Your task to perform on an android device: Search for razer blade on newegg.com, select the first entry, and add it to the cart. Image 0: 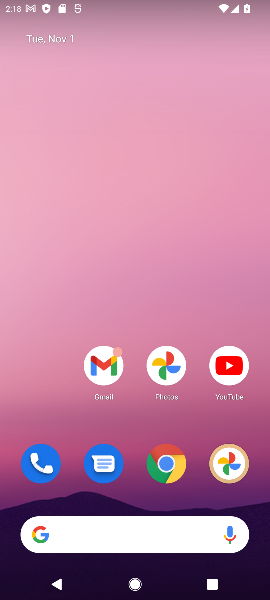
Step 0: drag from (139, 448) to (267, 15)
Your task to perform on an android device: Search for razer blade on newegg.com, select the first entry, and add it to the cart. Image 1: 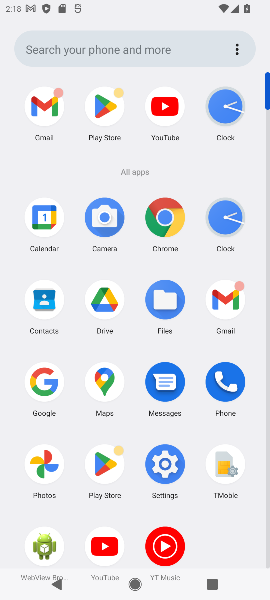
Step 1: click (166, 216)
Your task to perform on an android device: Search for razer blade on newegg.com, select the first entry, and add it to the cart. Image 2: 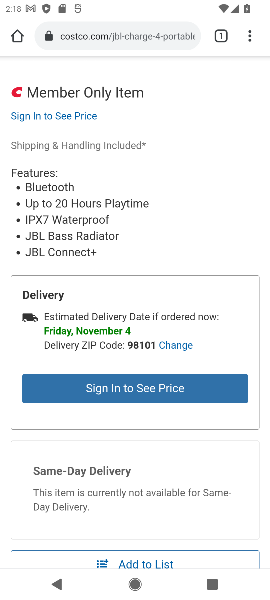
Step 2: click (168, 32)
Your task to perform on an android device: Search for razer blade on newegg.com, select the first entry, and add it to the cart. Image 3: 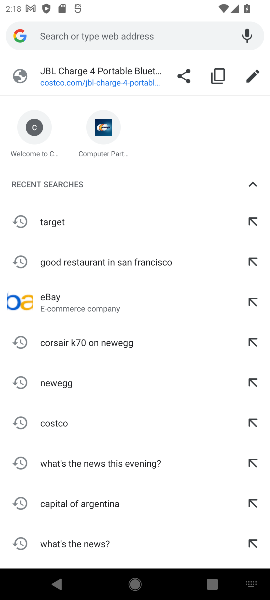
Step 3: type "newegg.com"
Your task to perform on an android device: Search for razer blade on newegg.com, select the first entry, and add it to the cart. Image 4: 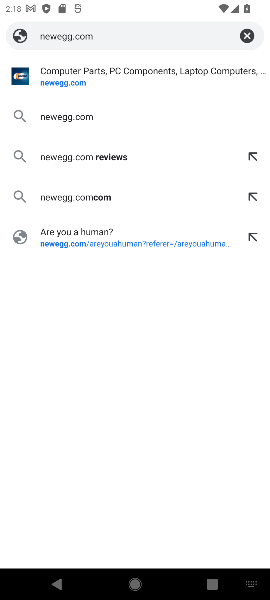
Step 4: press enter
Your task to perform on an android device: Search for razer blade on newegg.com, select the first entry, and add it to the cart. Image 5: 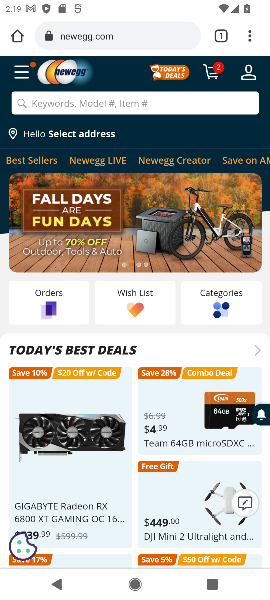
Step 5: click (216, 96)
Your task to perform on an android device: Search for razer blade on newegg.com, select the first entry, and add it to the cart. Image 6: 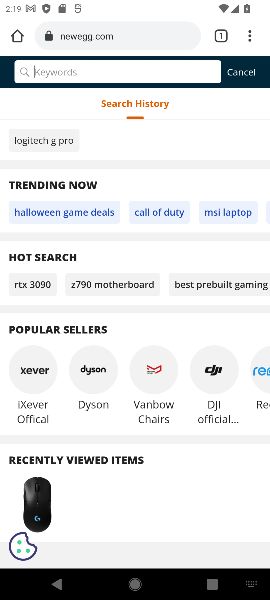
Step 6: type "razer blade"
Your task to perform on an android device: Search for razer blade on newegg.com, select the first entry, and add it to the cart. Image 7: 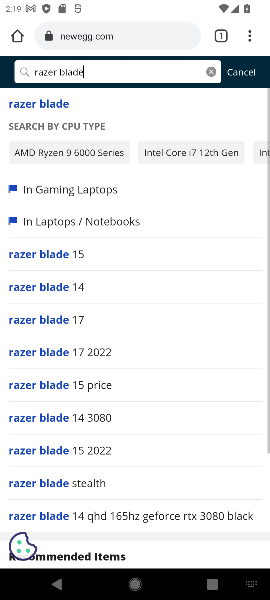
Step 7: press enter
Your task to perform on an android device: Search for razer blade on newegg.com, select the first entry, and add it to the cart. Image 8: 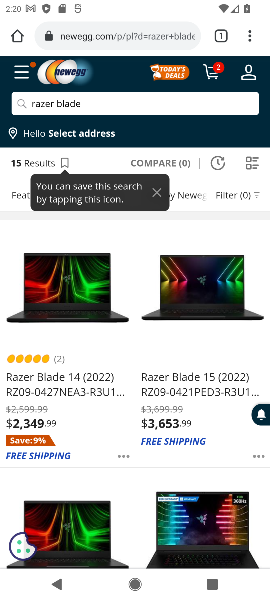
Step 8: click (69, 302)
Your task to perform on an android device: Search for razer blade on newegg.com, select the first entry, and add it to the cart. Image 9: 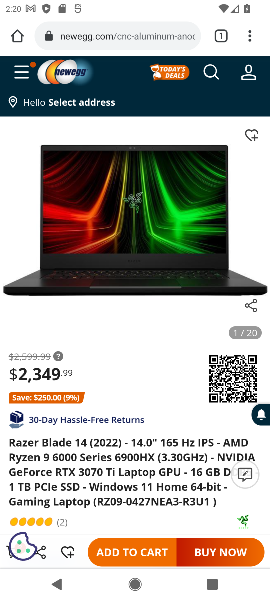
Step 9: click (142, 552)
Your task to perform on an android device: Search for razer blade on newegg.com, select the first entry, and add it to the cart. Image 10: 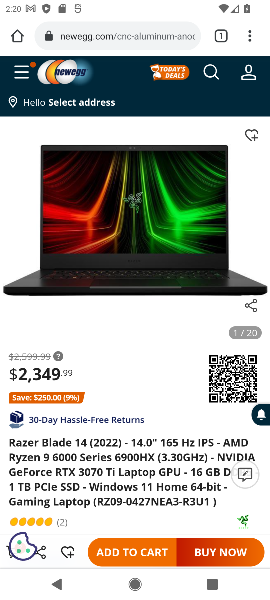
Step 10: click (147, 554)
Your task to perform on an android device: Search for razer blade on newegg.com, select the first entry, and add it to the cart. Image 11: 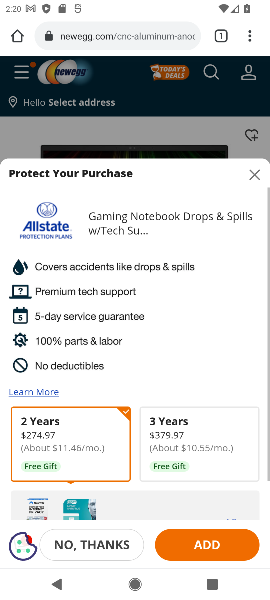
Step 11: click (89, 544)
Your task to perform on an android device: Search for razer blade on newegg.com, select the first entry, and add it to the cart. Image 12: 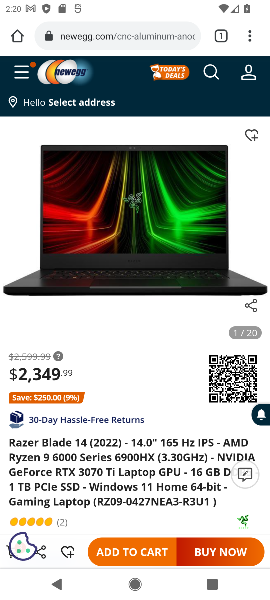
Step 12: drag from (158, 205) to (109, 489)
Your task to perform on an android device: Search for razer blade on newegg.com, select the first entry, and add it to the cart. Image 13: 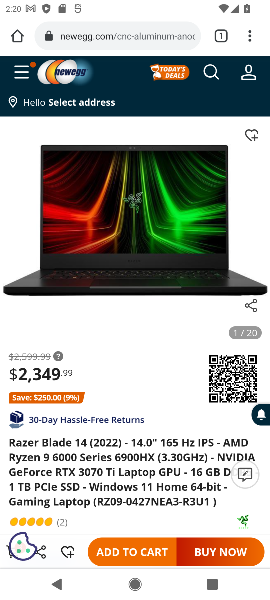
Step 13: drag from (132, 422) to (139, 127)
Your task to perform on an android device: Search for razer blade on newegg.com, select the first entry, and add it to the cart. Image 14: 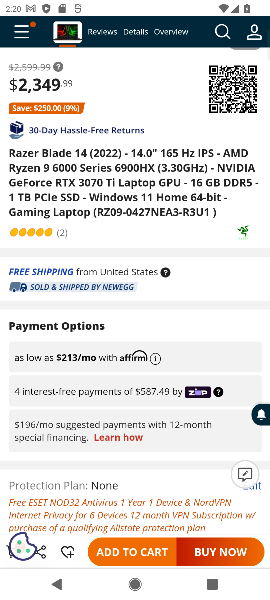
Step 14: drag from (144, 341) to (143, 112)
Your task to perform on an android device: Search for razer blade on newegg.com, select the first entry, and add it to the cart. Image 15: 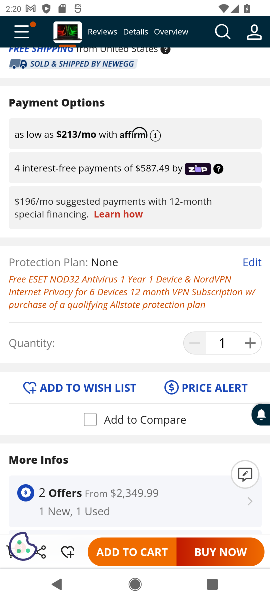
Step 15: drag from (113, 180) to (165, 78)
Your task to perform on an android device: Search for razer blade on newegg.com, select the first entry, and add it to the cart. Image 16: 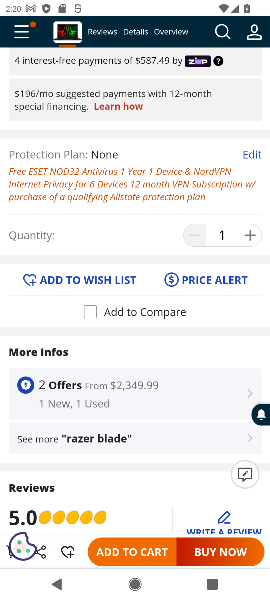
Step 16: drag from (133, 444) to (134, 207)
Your task to perform on an android device: Search for razer blade on newegg.com, select the first entry, and add it to the cart. Image 17: 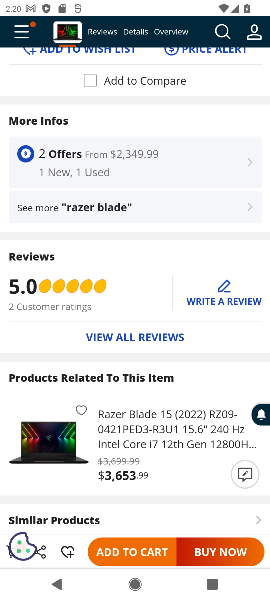
Step 17: click (19, 30)
Your task to perform on an android device: Search for razer blade on newegg.com, select the first entry, and add it to the cart. Image 18: 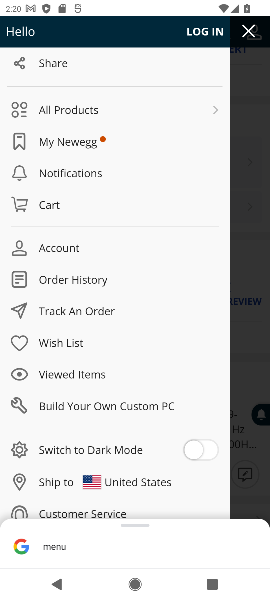
Step 18: click (36, 201)
Your task to perform on an android device: Search for razer blade on newegg.com, select the first entry, and add it to the cart. Image 19: 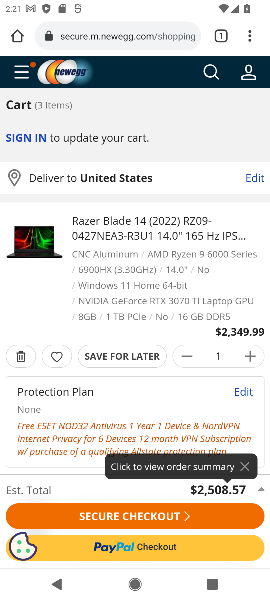
Step 19: task complete